Your task to perform on an android device: turn off priority inbox in the gmail app Image 0: 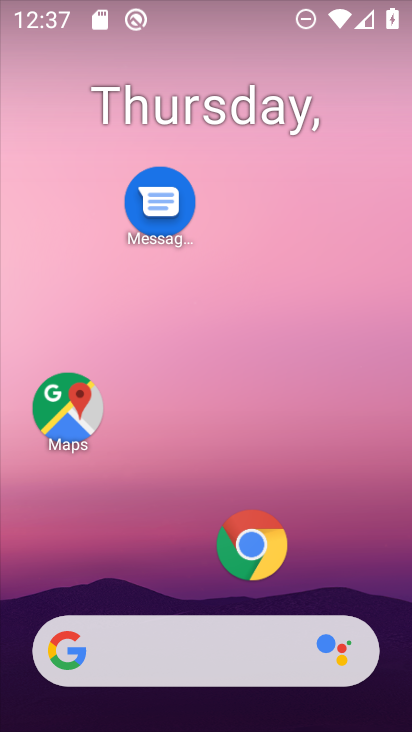
Step 0: drag from (170, 521) to (233, 109)
Your task to perform on an android device: turn off priority inbox in the gmail app Image 1: 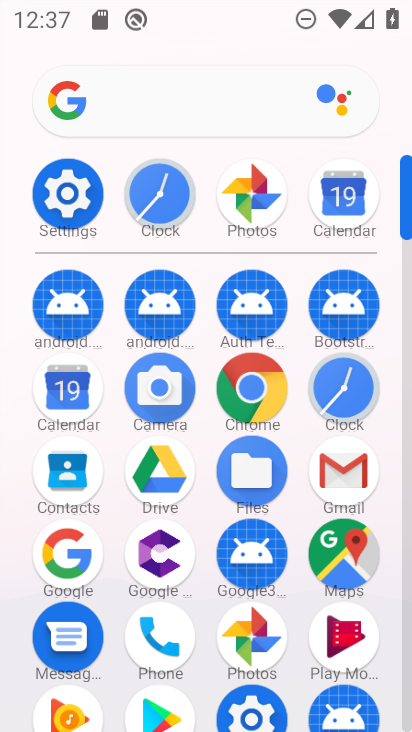
Step 1: click (313, 469)
Your task to perform on an android device: turn off priority inbox in the gmail app Image 2: 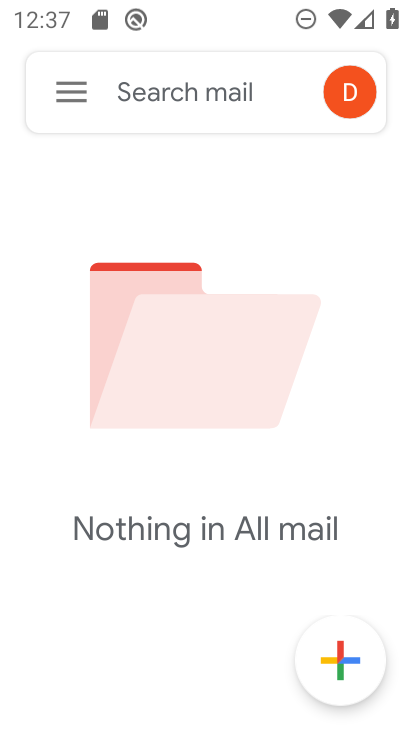
Step 2: click (86, 91)
Your task to perform on an android device: turn off priority inbox in the gmail app Image 3: 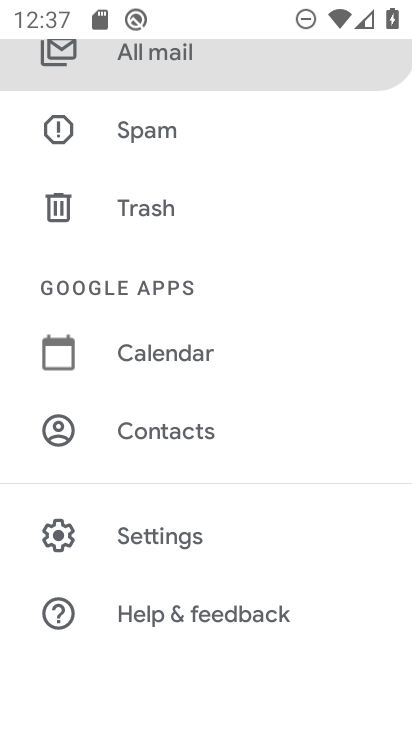
Step 3: click (166, 533)
Your task to perform on an android device: turn off priority inbox in the gmail app Image 4: 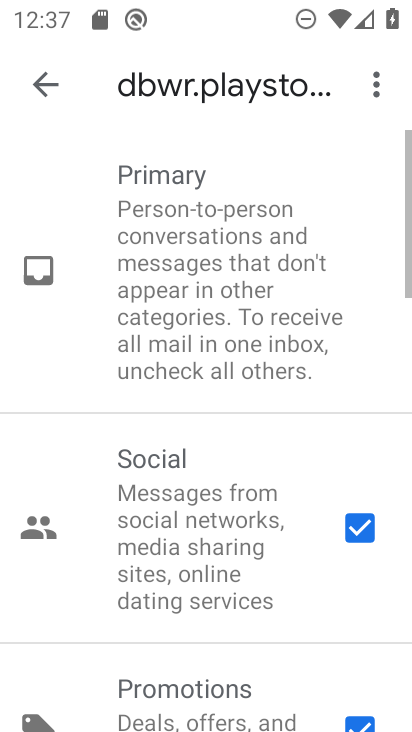
Step 4: drag from (224, 617) to (258, 212)
Your task to perform on an android device: turn off priority inbox in the gmail app Image 5: 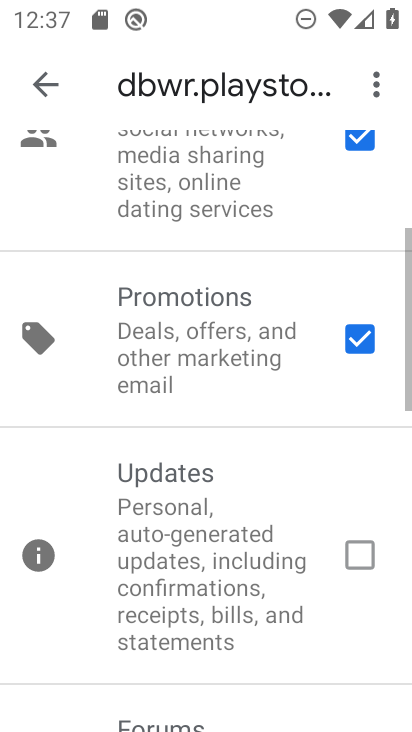
Step 5: drag from (230, 605) to (241, 244)
Your task to perform on an android device: turn off priority inbox in the gmail app Image 6: 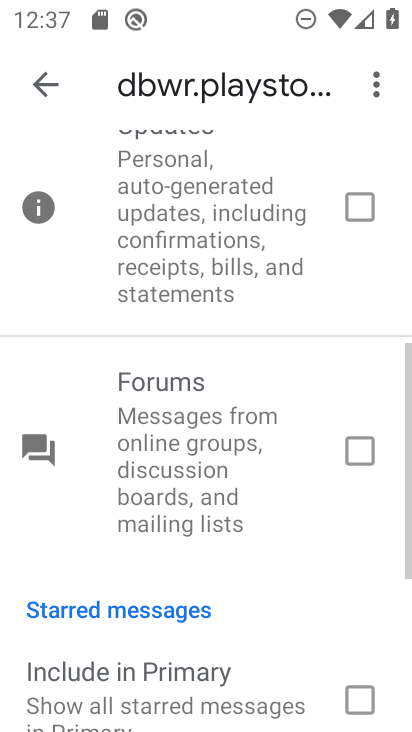
Step 6: drag from (239, 577) to (239, 283)
Your task to perform on an android device: turn off priority inbox in the gmail app Image 7: 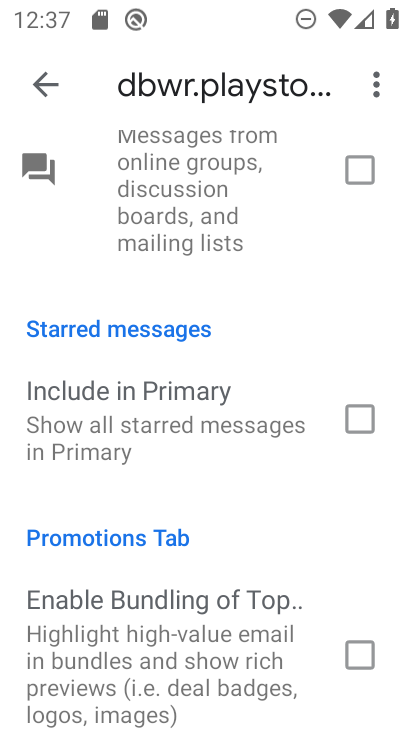
Step 7: drag from (213, 609) to (215, 275)
Your task to perform on an android device: turn off priority inbox in the gmail app Image 8: 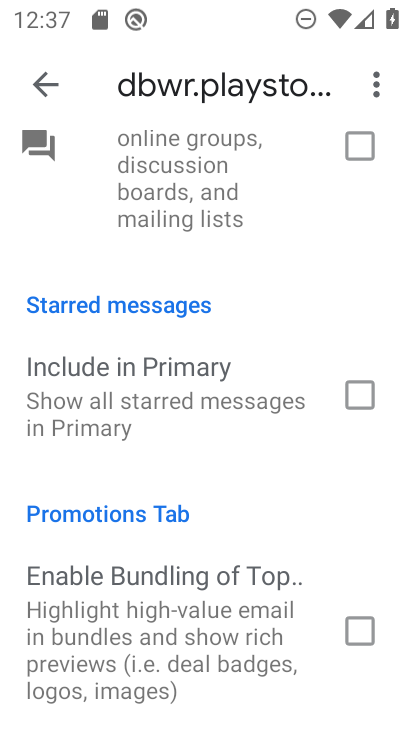
Step 8: drag from (189, 593) to (120, 169)
Your task to perform on an android device: turn off priority inbox in the gmail app Image 9: 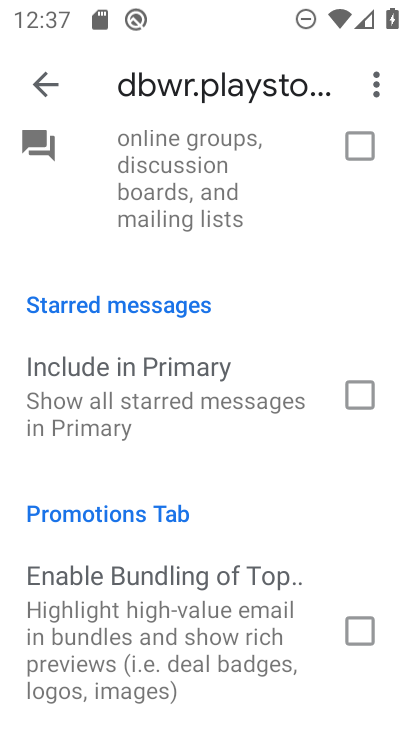
Step 9: drag from (148, 154) to (208, 484)
Your task to perform on an android device: turn off priority inbox in the gmail app Image 10: 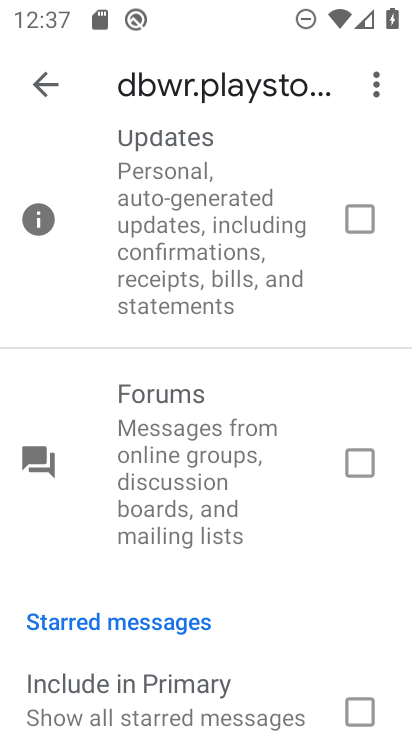
Step 10: drag from (180, 291) to (209, 466)
Your task to perform on an android device: turn off priority inbox in the gmail app Image 11: 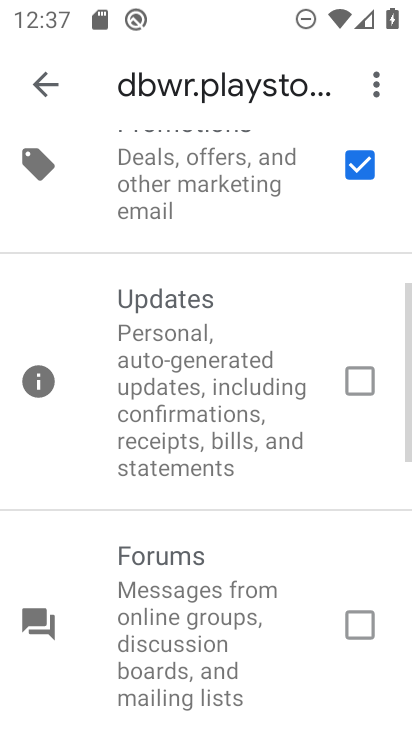
Step 11: drag from (157, 216) to (204, 503)
Your task to perform on an android device: turn off priority inbox in the gmail app Image 12: 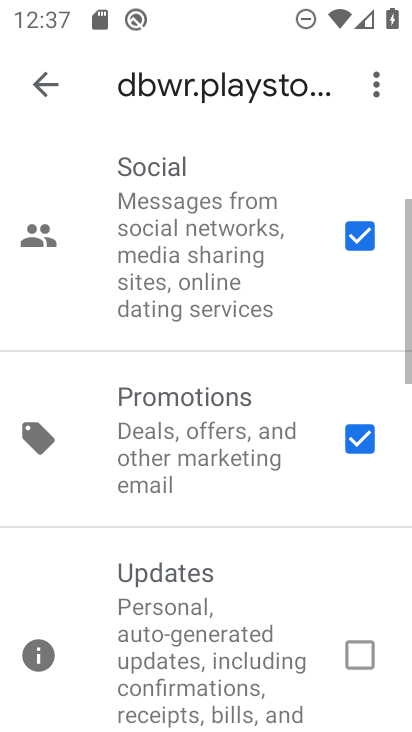
Step 12: drag from (164, 282) to (181, 447)
Your task to perform on an android device: turn off priority inbox in the gmail app Image 13: 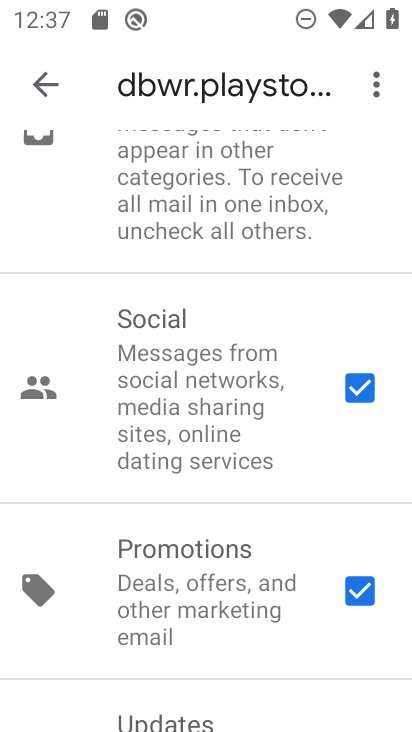
Step 13: click (67, 82)
Your task to perform on an android device: turn off priority inbox in the gmail app Image 14: 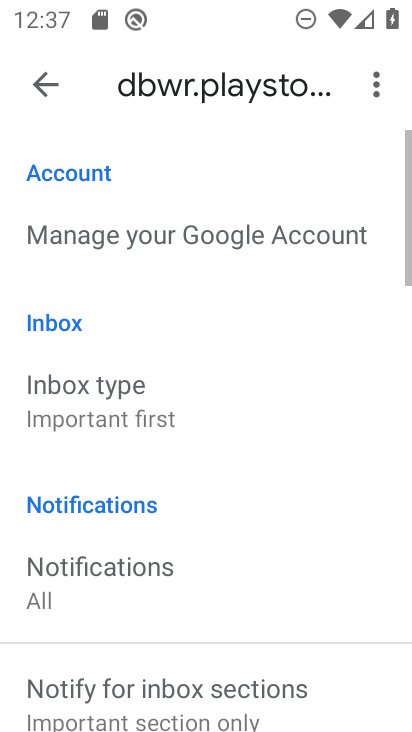
Step 14: click (185, 398)
Your task to perform on an android device: turn off priority inbox in the gmail app Image 15: 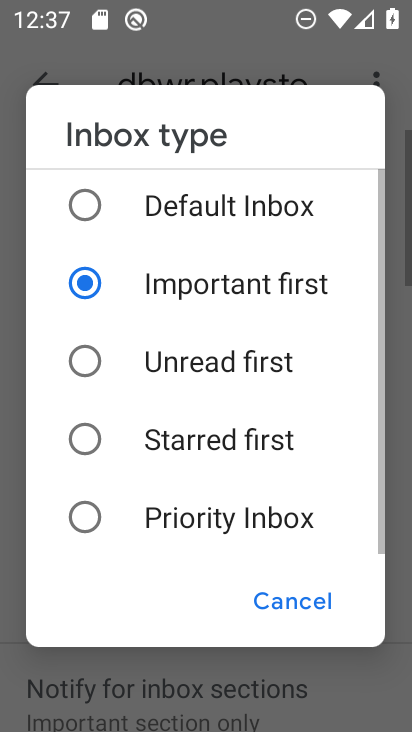
Step 15: task complete